Your task to perform on an android device: When is my next appointment? Image 0: 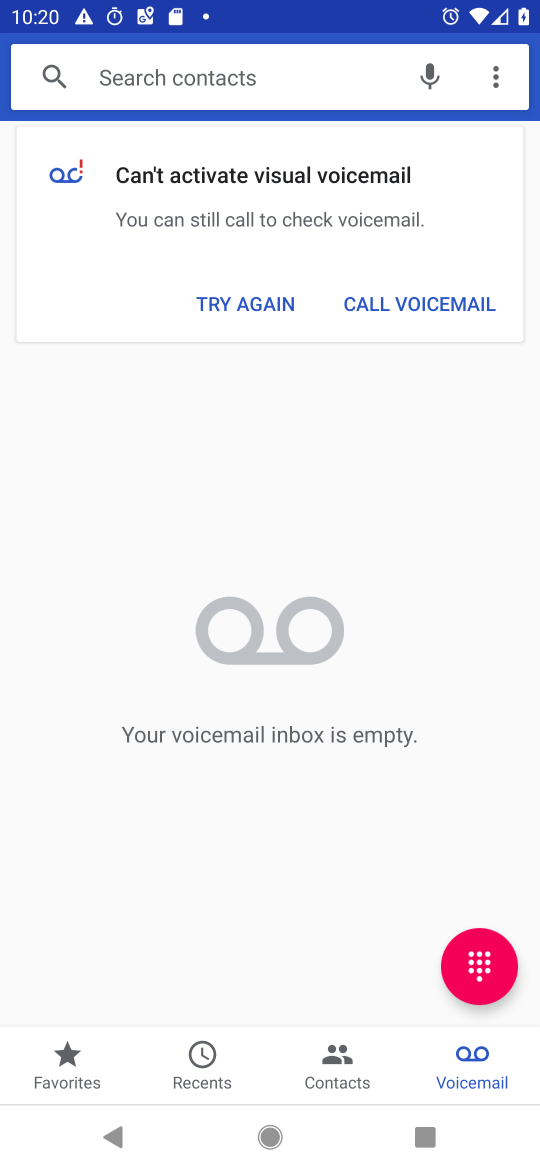
Step 0: drag from (253, 608) to (258, 289)
Your task to perform on an android device: When is my next appointment? Image 1: 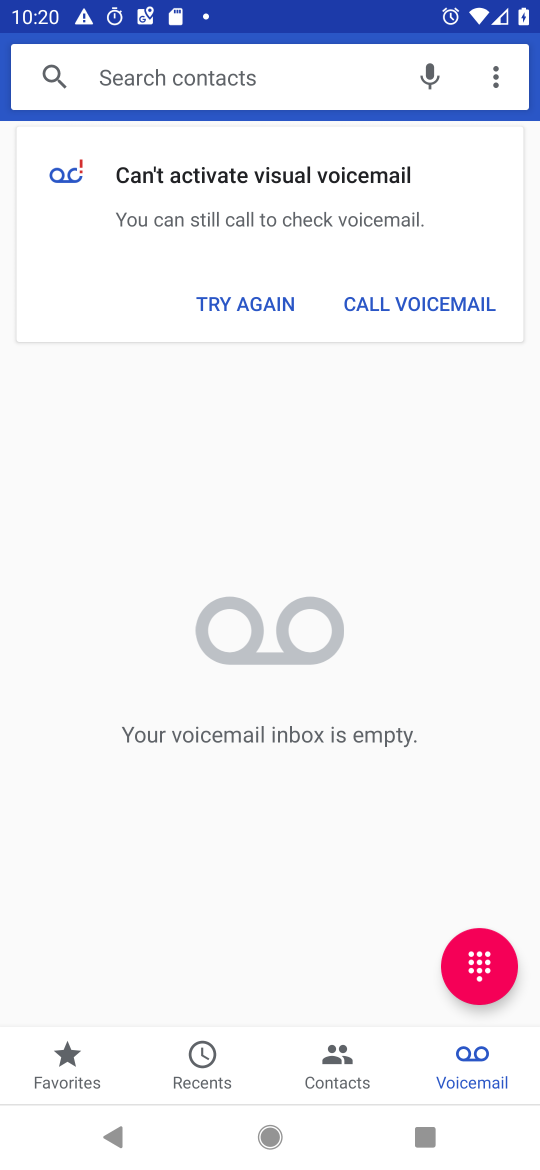
Step 1: drag from (295, 728) to (313, 518)
Your task to perform on an android device: When is my next appointment? Image 2: 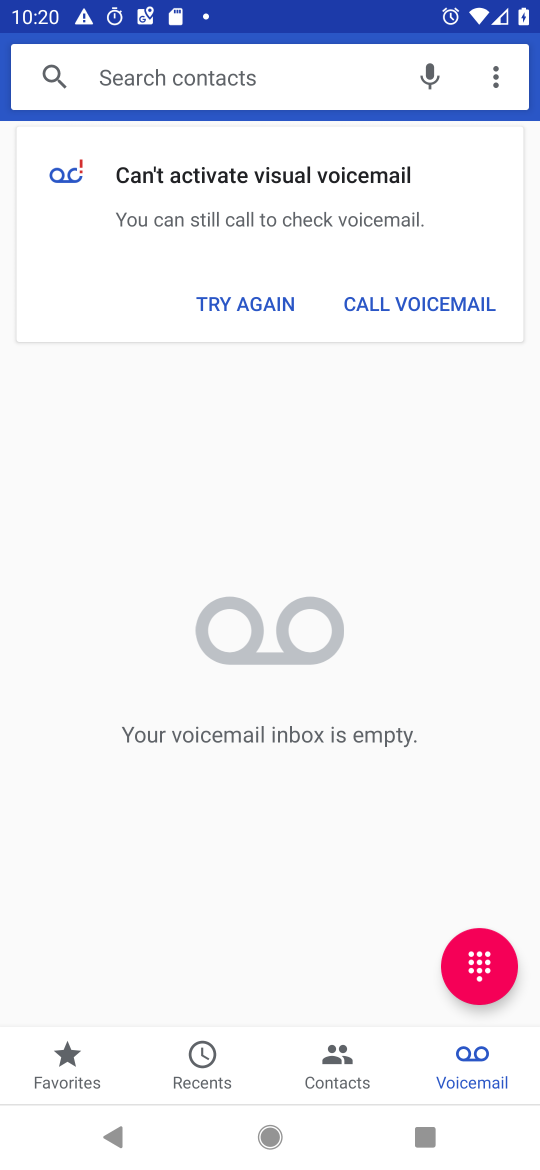
Step 2: press home button
Your task to perform on an android device: When is my next appointment? Image 3: 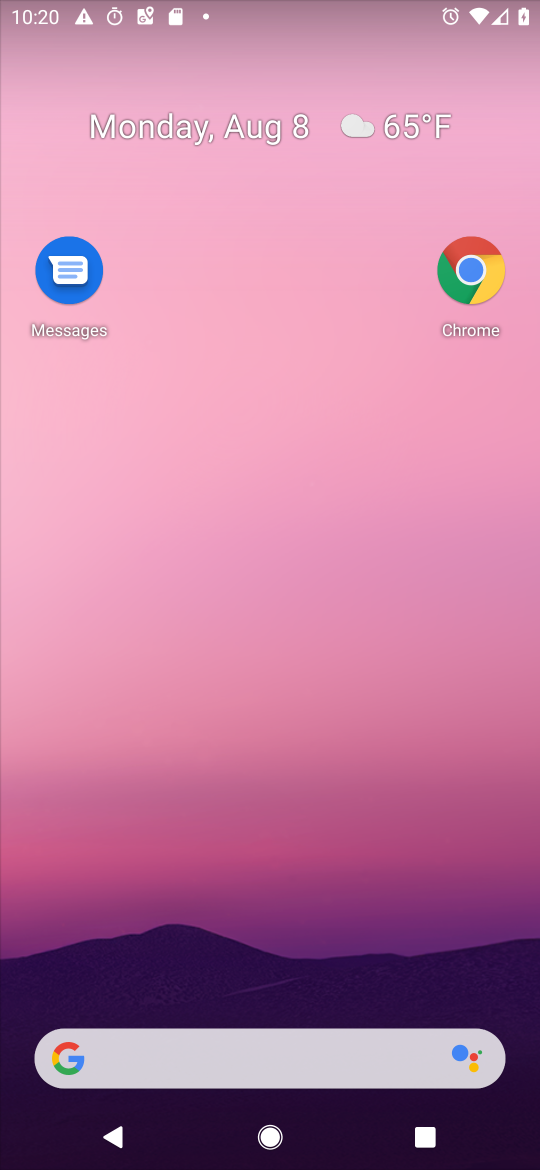
Step 3: drag from (297, 834) to (297, 137)
Your task to perform on an android device: When is my next appointment? Image 4: 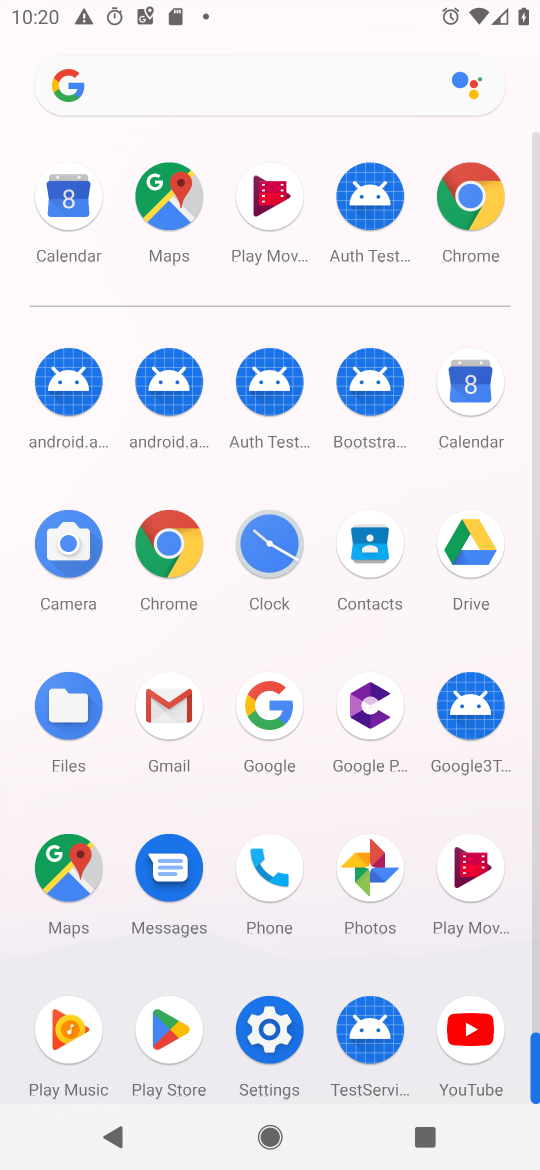
Step 4: click (474, 389)
Your task to perform on an android device: When is my next appointment? Image 5: 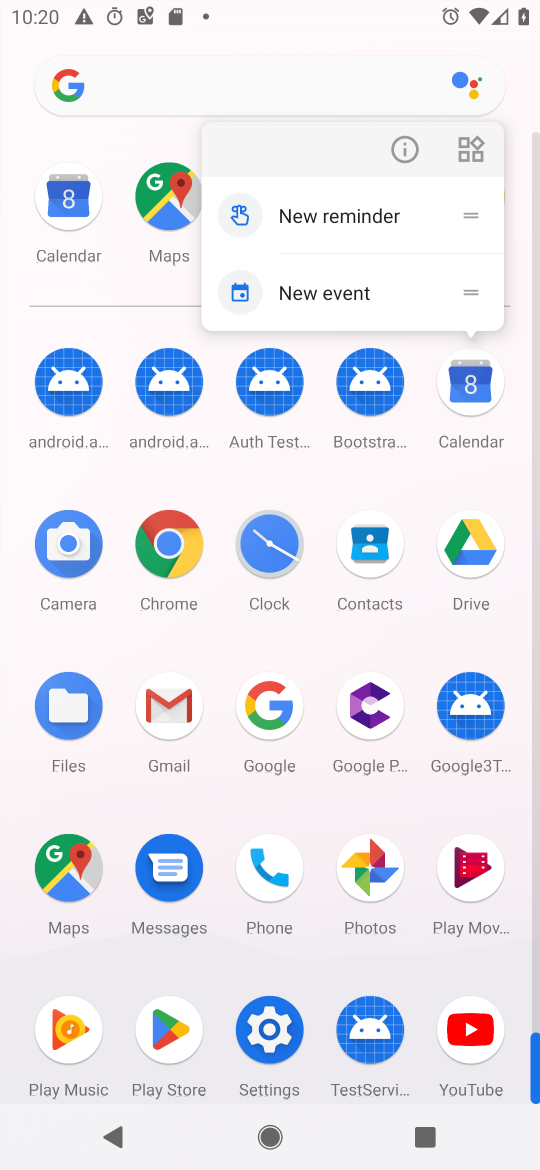
Step 5: click (402, 156)
Your task to perform on an android device: When is my next appointment? Image 6: 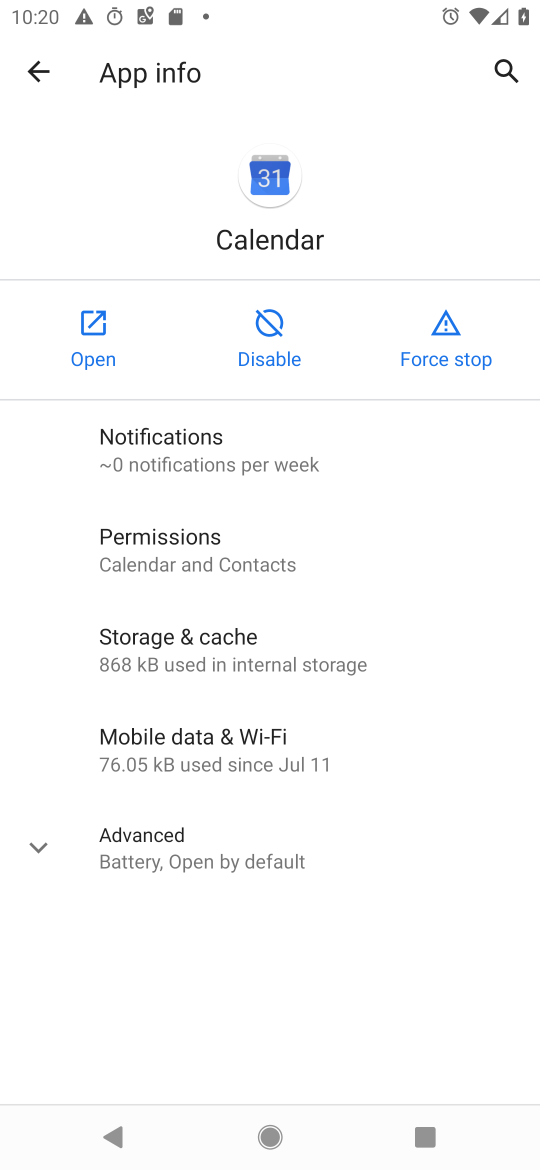
Step 6: click (89, 306)
Your task to perform on an android device: When is my next appointment? Image 7: 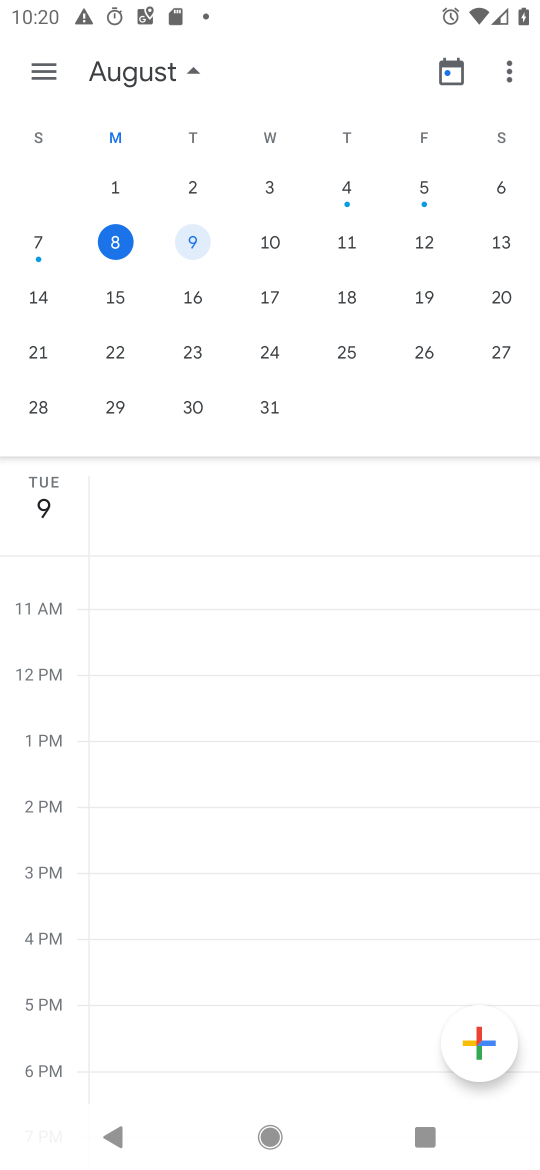
Step 7: click (457, 52)
Your task to perform on an android device: When is my next appointment? Image 8: 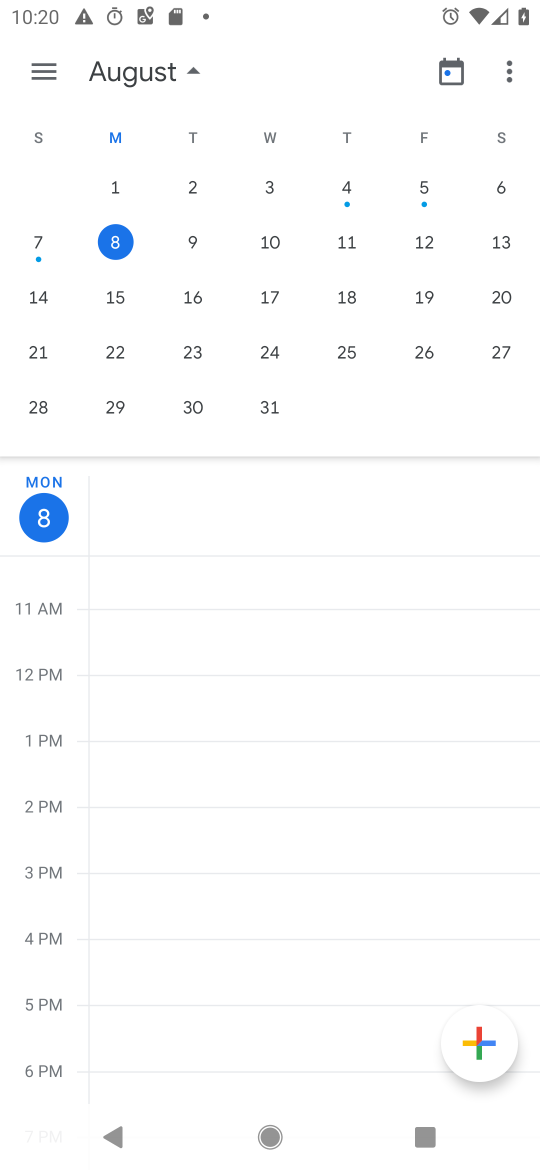
Step 8: click (107, 237)
Your task to perform on an android device: When is my next appointment? Image 9: 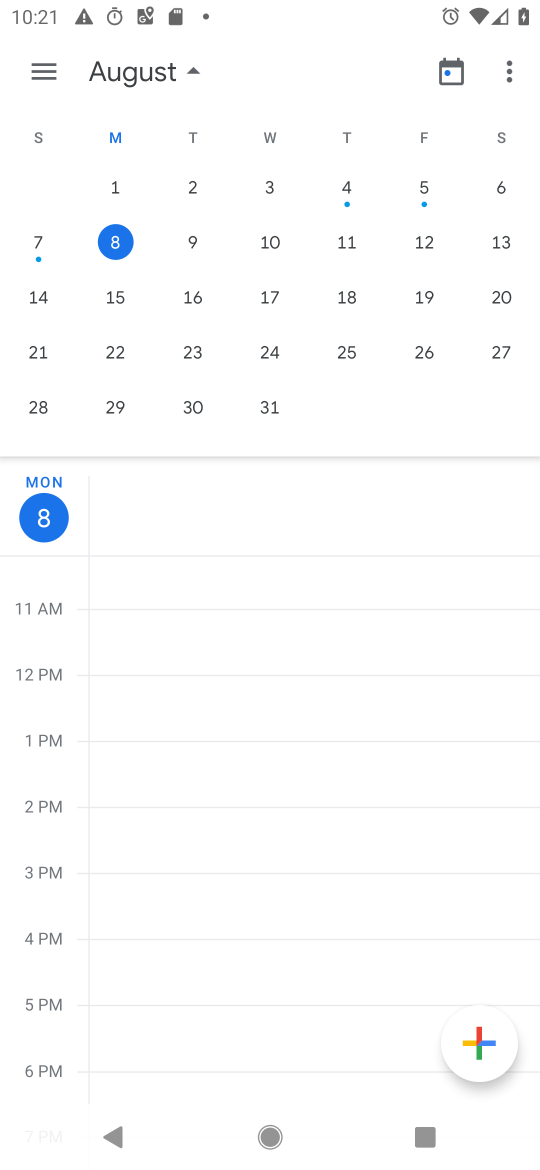
Step 9: task complete